Your task to perform on an android device: Do I have any events this weekend? Image 0: 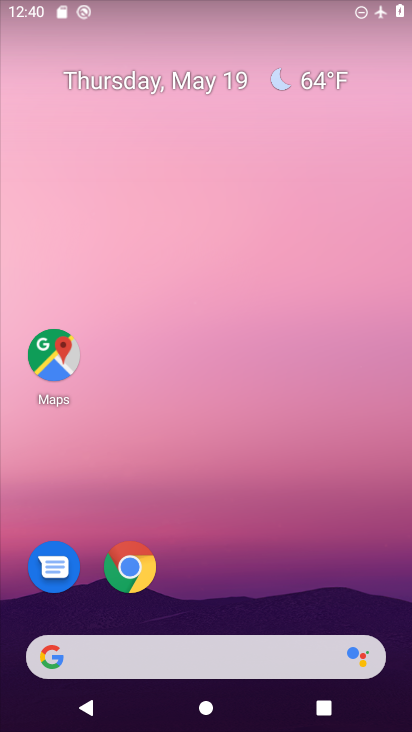
Step 0: drag from (308, 588) to (303, 215)
Your task to perform on an android device: Do I have any events this weekend? Image 1: 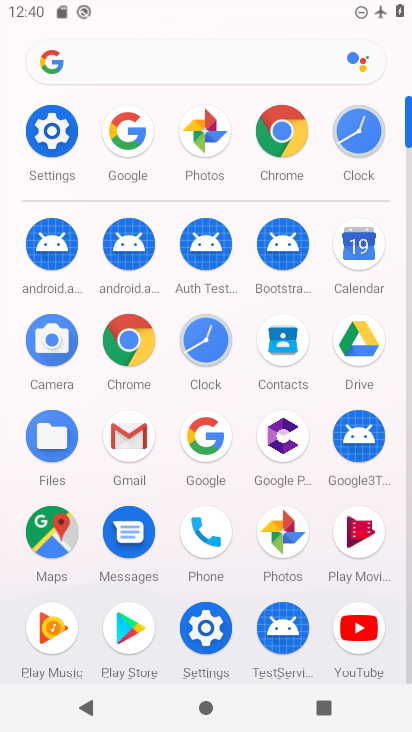
Step 1: click (368, 257)
Your task to perform on an android device: Do I have any events this weekend? Image 2: 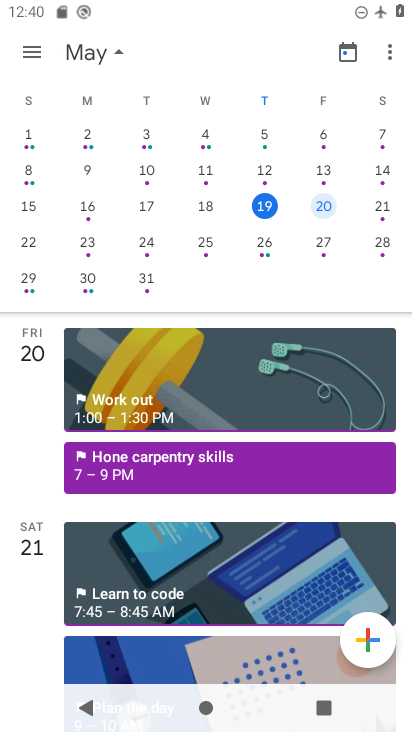
Step 2: click (323, 209)
Your task to perform on an android device: Do I have any events this weekend? Image 3: 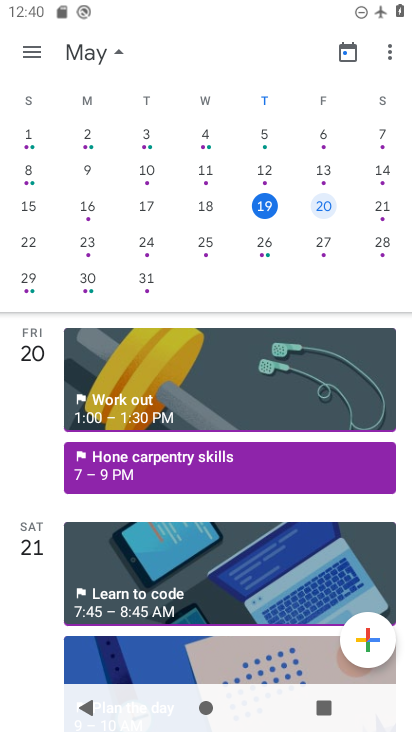
Step 3: click (382, 216)
Your task to perform on an android device: Do I have any events this weekend? Image 4: 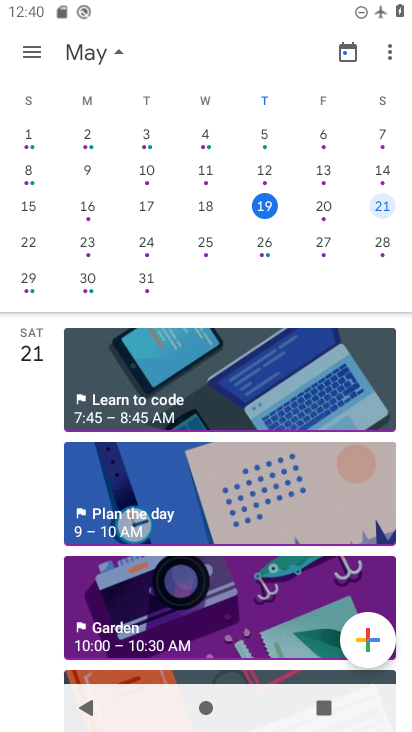
Step 4: task complete